Your task to perform on an android device: change the clock style Image 0: 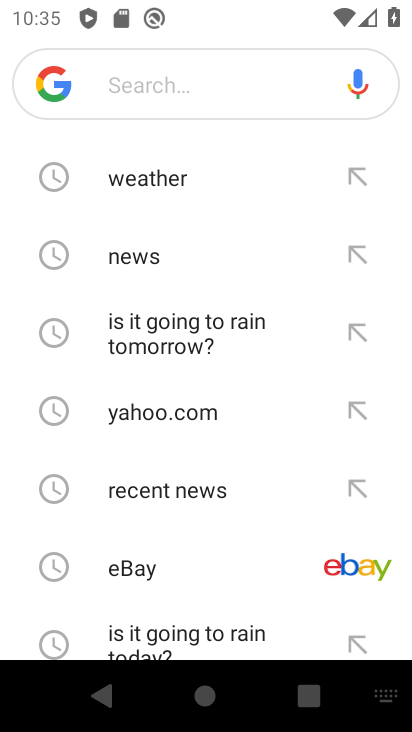
Step 0: press home button
Your task to perform on an android device: change the clock style Image 1: 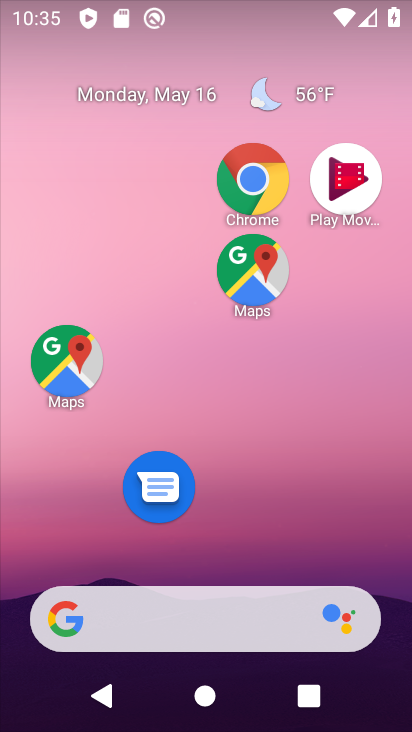
Step 1: click (283, 144)
Your task to perform on an android device: change the clock style Image 2: 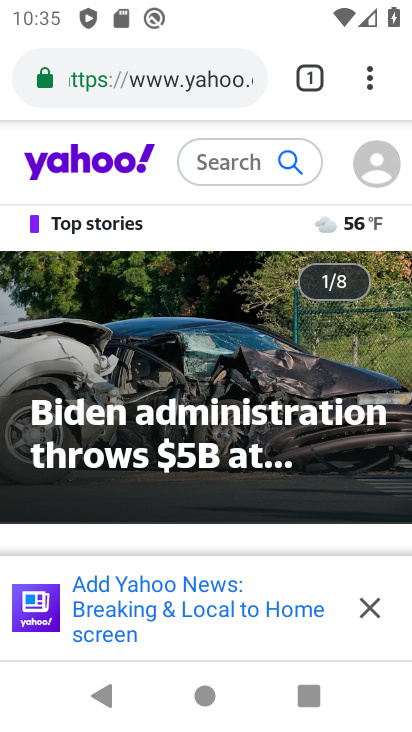
Step 2: press home button
Your task to perform on an android device: change the clock style Image 3: 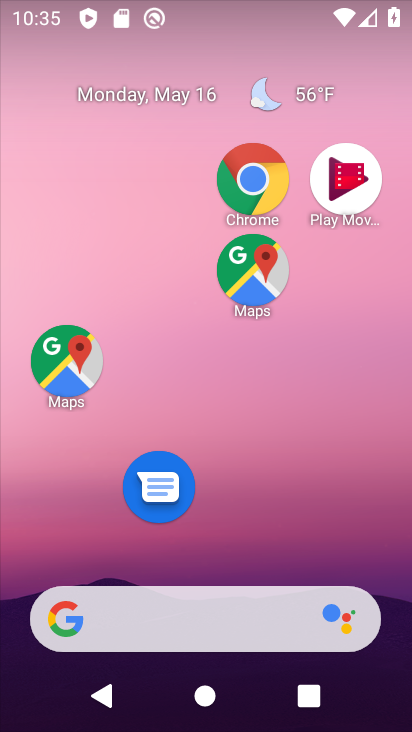
Step 3: drag from (303, 236) to (320, 135)
Your task to perform on an android device: change the clock style Image 4: 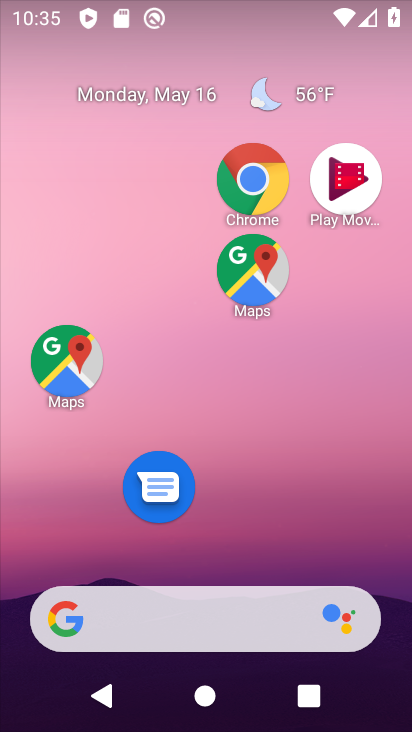
Step 4: drag from (208, 426) to (233, 98)
Your task to perform on an android device: change the clock style Image 5: 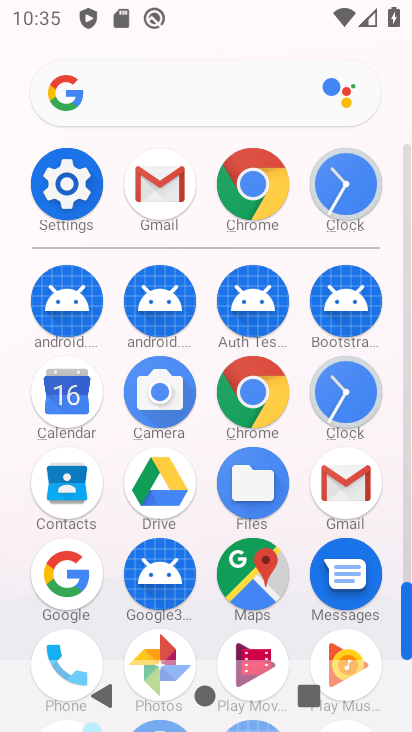
Step 5: click (339, 181)
Your task to perform on an android device: change the clock style Image 6: 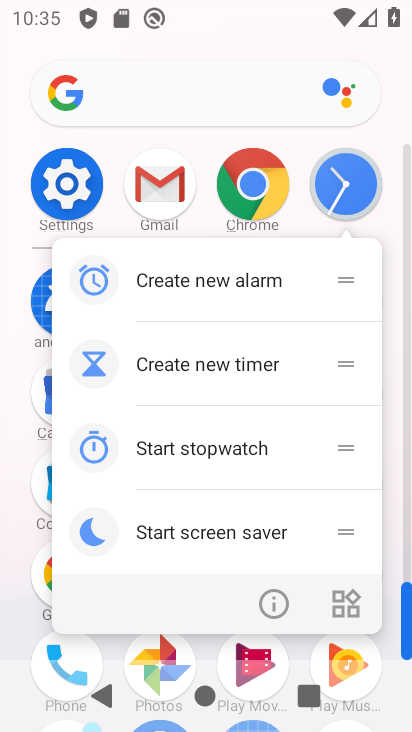
Step 6: click (339, 191)
Your task to perform on an android device: change the clock style Image 7: 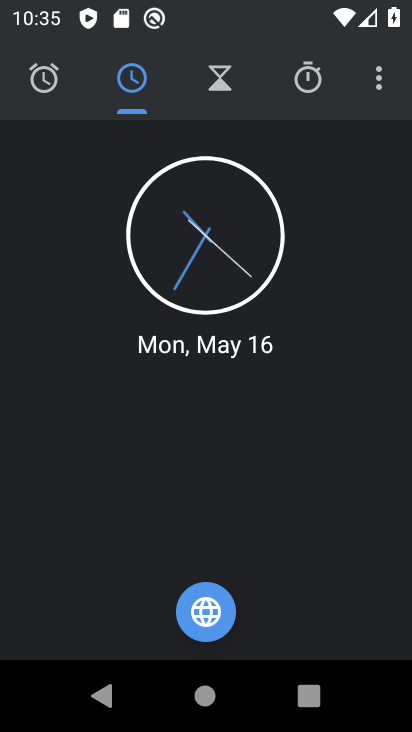
Step 7: click (385, 79)
Your task to perform on an android device: change the clock style Image 8: 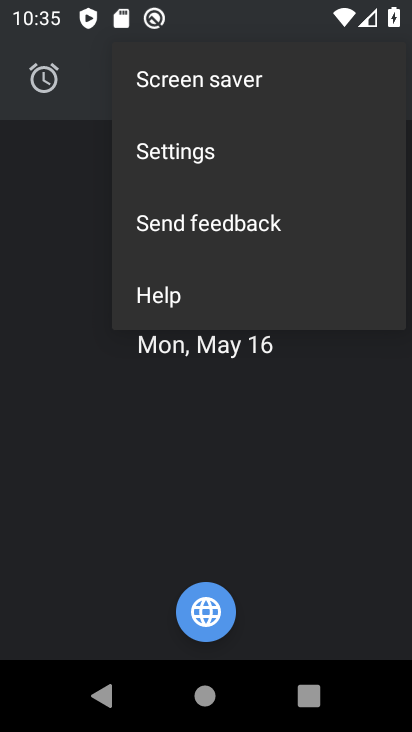
Step 8: click (297, 144)
Your task to perform on an android device: change the clock style Image 9: 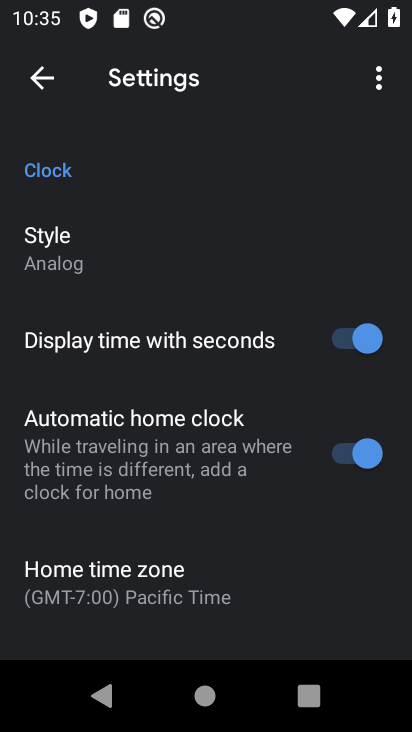
Step 9: click (49, 243)
Your task to perform on an android device: change the clock style Image 10: 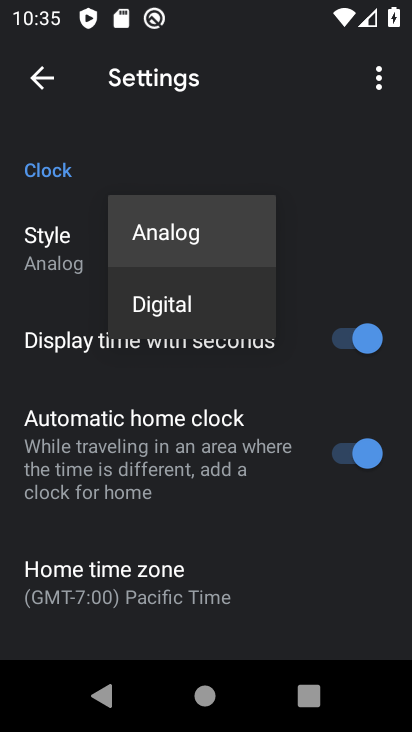
Step 10: click (163, 317)
Your task to perform on an android device: change the clock style Image 11: 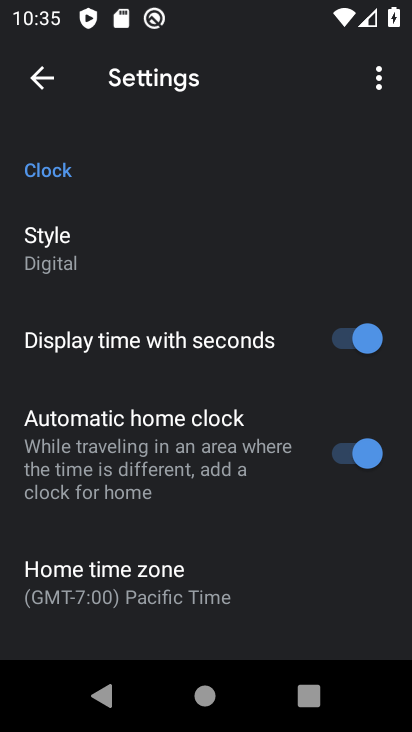
Step 11: task complete